Your task to perform on an android device: toggle priority inbox in the gmail app Image 0: 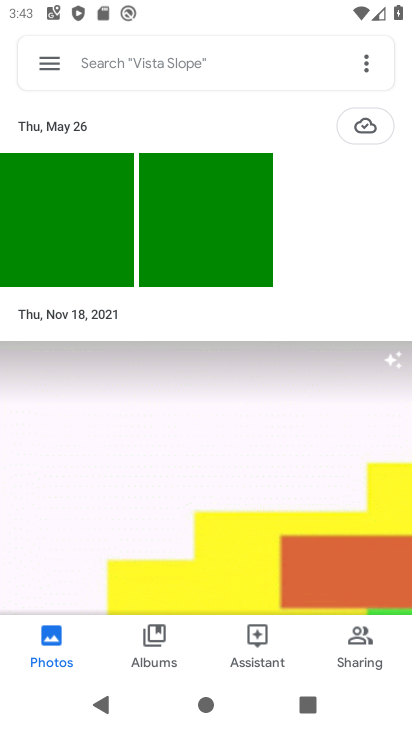
Step 0: press home button
Your task to perform on an android device: toggle priority inbox in the gmail app Image 1: 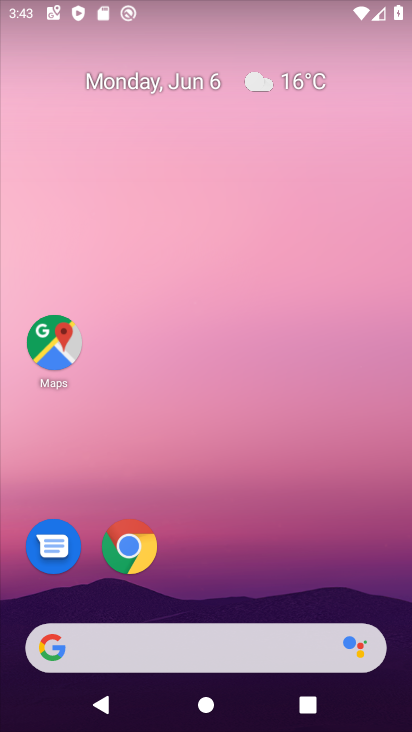
Step 1: drag from (319, 612) to (338, 34)
Your task to perform on an android device: toggle priority inbox in the gmail app Image 2: 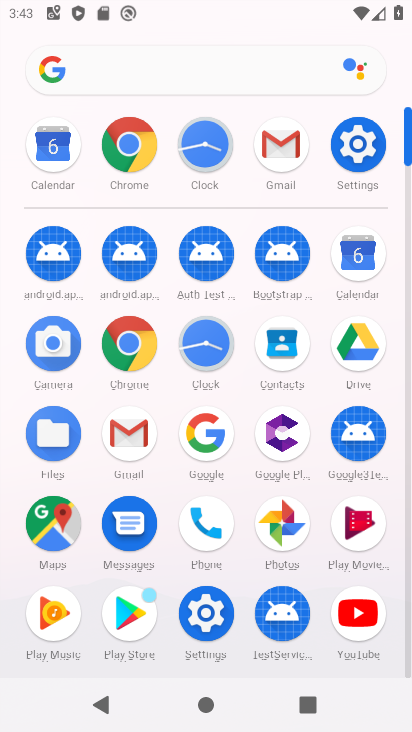
Step 2: click (280, 144)
Your task to perform on an android device: toggle priority inbox in the gmail app Image 3: 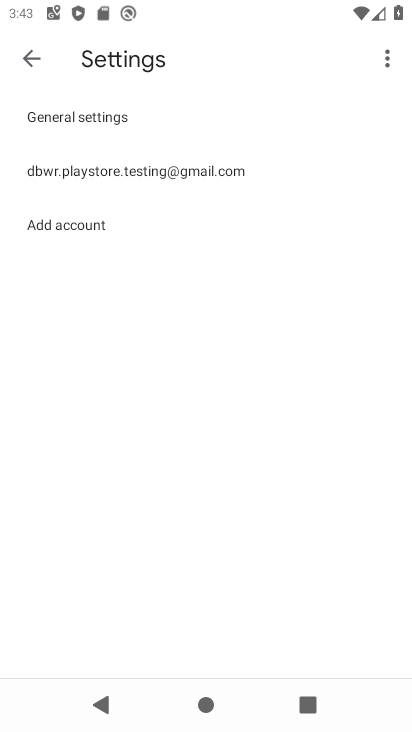
Step 3: click (24, 70)
Your task to perform on an android device: toggle priority inbox in the gmail app Image 4: 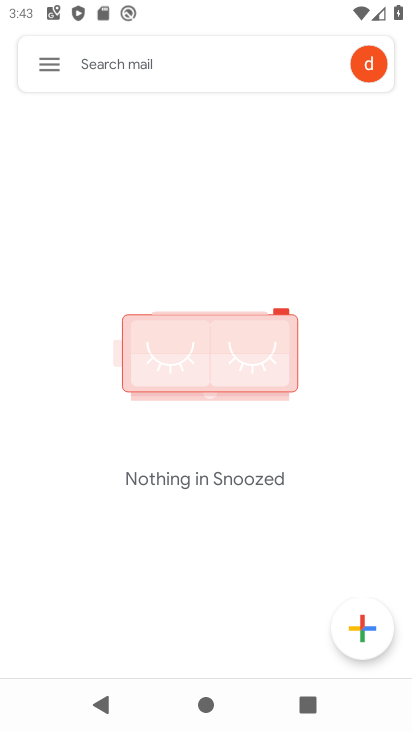
Step 4: click (24, 69)
Your task to perform on an android device: toggle priority inbox in the gmail app Image 5: 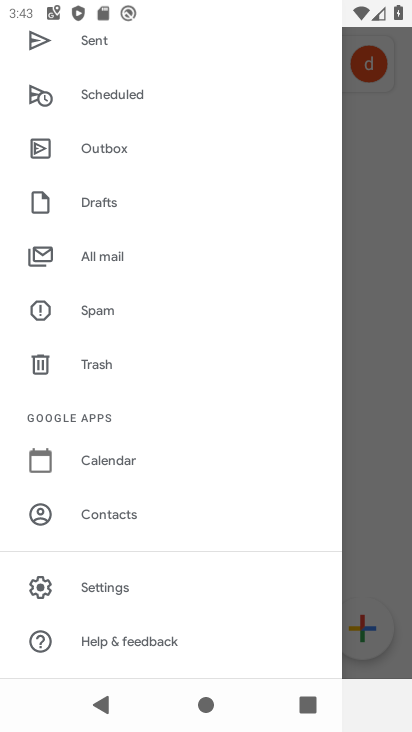
Step 5: click (91, 581)
Your task to perform on an android device: toggle priority inbox in the gmail app Image 6: 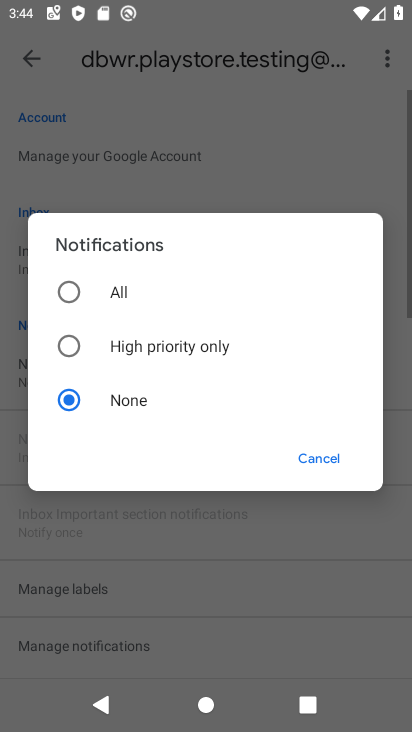
Step 6: click (325, 451)
Your task to perform on an android device: toggle priority inbox in the gmail app Image 7: 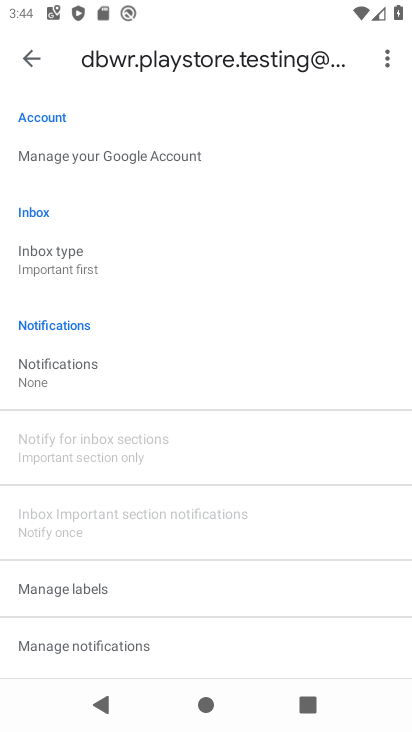
Step 7: drag from (154, 242) to (145, 637)
Your task to perform on an android device: toggle priority inbox in the gmail app Image 8: 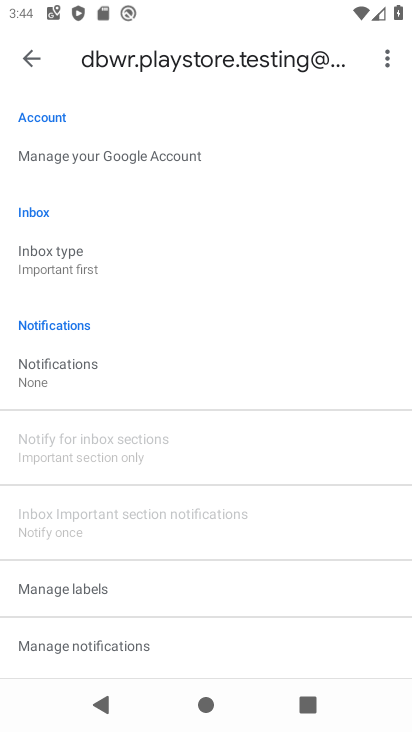
Step 8: click (58, 271)
Your task to perform on an android device: toggle priority inbox in the gmail app Image 9: 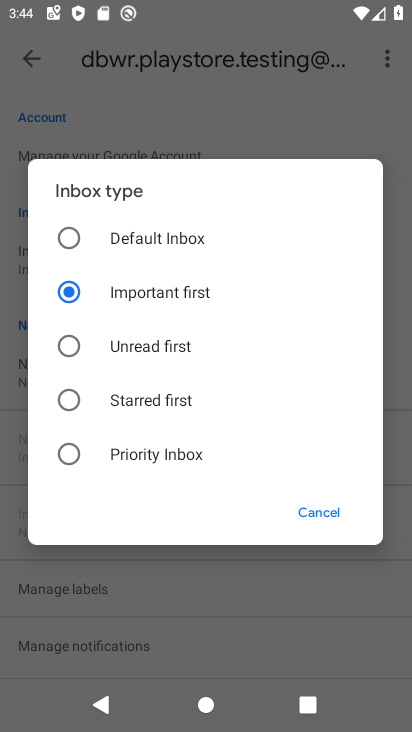
Step 9: click (126, 450)
Your task to perform on an android device: toggle priority inbox in the gmail app Image 10: 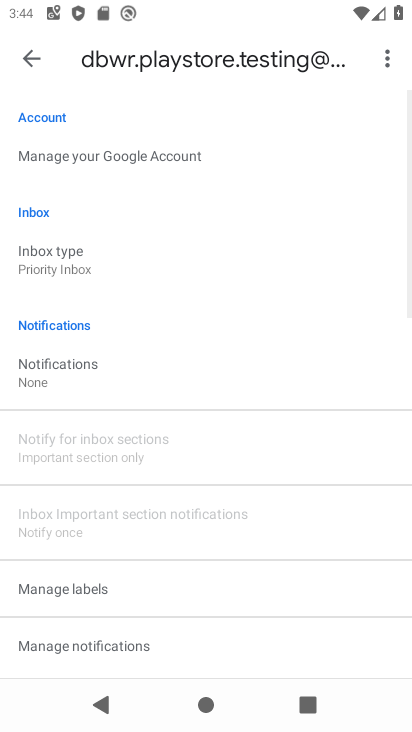
Step 10: task complete